Your task to perform on an android device: turn on showing notifications on the lock screen Image 0: 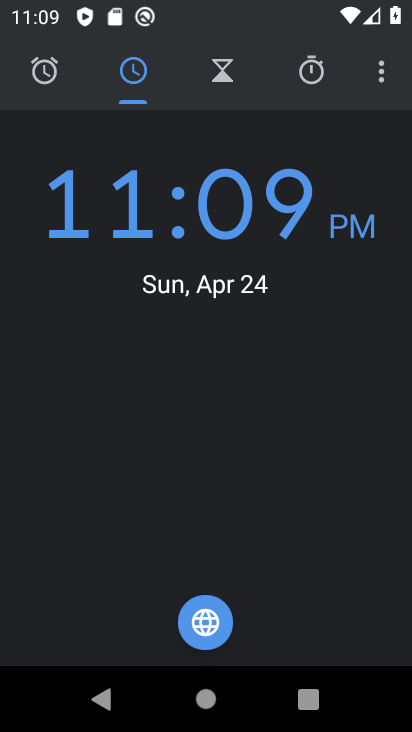
Step 0: press home button
Your task to perform on an android device: turn on showing notifications on the lock screen Image 1: 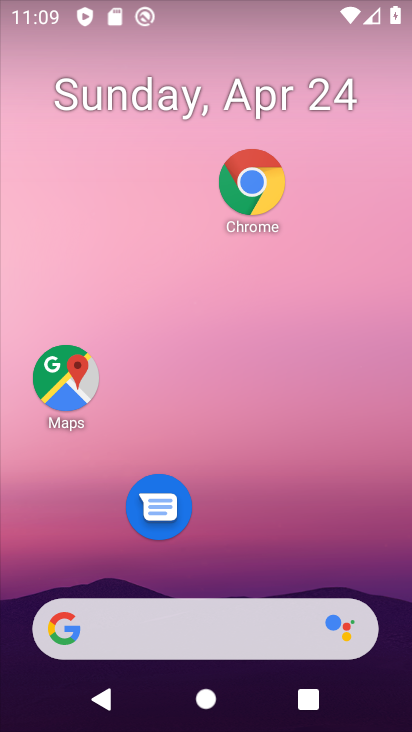
Step 1: drag from (226, 722) to (220, 81)
Your task to perform on an android device: turn on showing notifications on the lock screen Image 2: 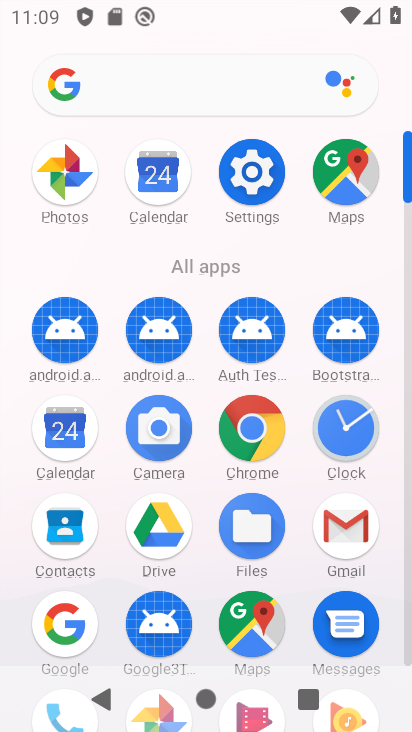
Step 2: click (244, 171)
Your task to perform on an android device: turn on showing notifications on the lock screen Image 3: 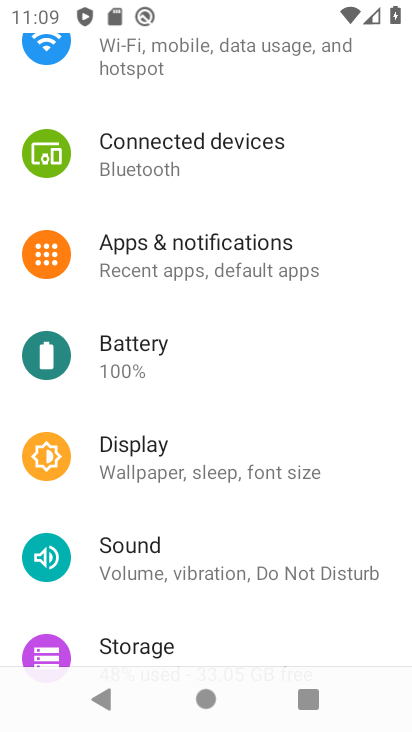
Step 3: click (167, 253)
Your task to perform on an android device: turn on showing notifications on the lock screen Image 4: 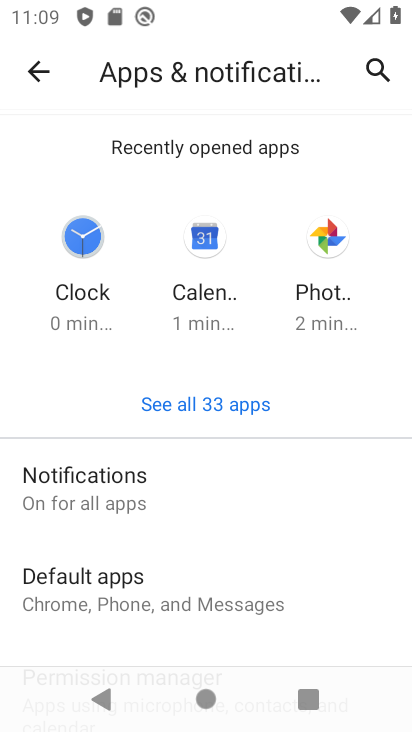
Step 4: click (85, 495)
Your task to perform on an android device: turn on showing notifications on the lock screen Image 5: 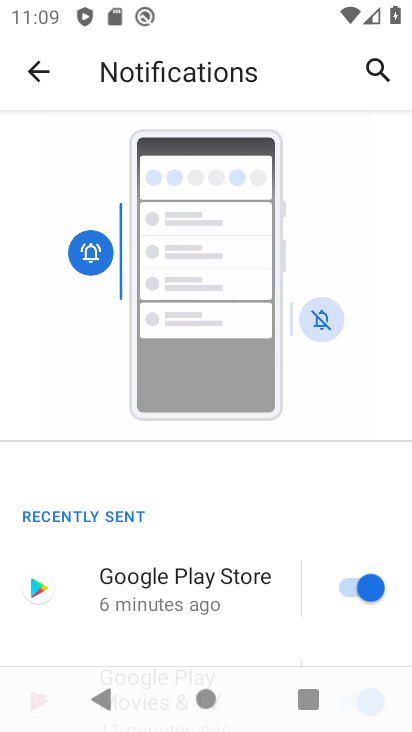
Step 5: drag from (234, 642) to (248, 119)
Your task to perform on an android device: turn on showing notifications on the lock screen Image 6: 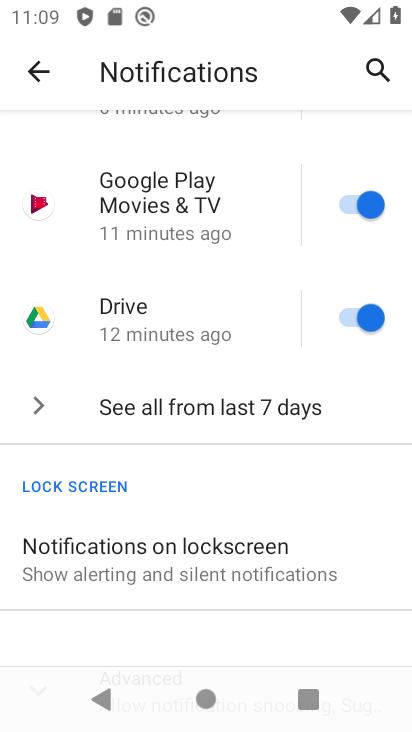
Step 6: click (220, 554)
Your task to perform on an android device: turn on showing notifications on the lock screen Image 7: 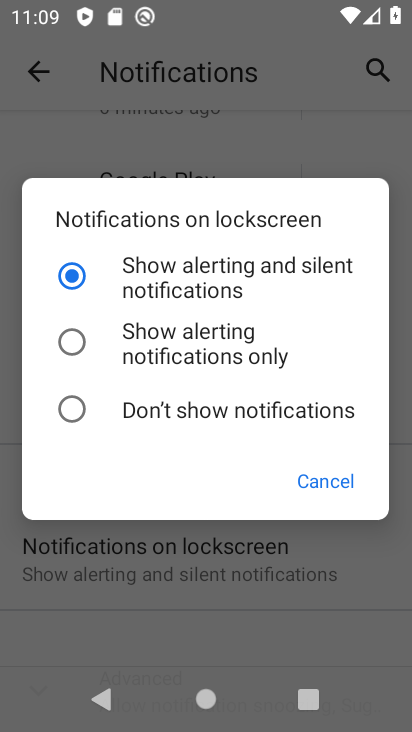
Step 7: click (330, 478)
Your task to perform on an android device: turn on showing notifications on the lock screen Image 8: 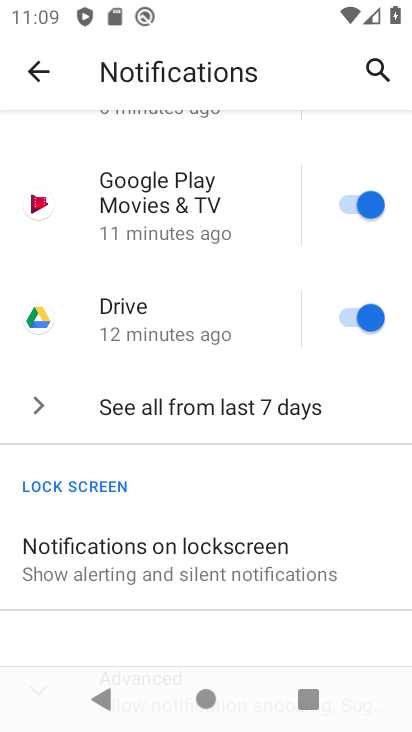
Step 8: task complete